Your task to perform on an android device: turn off wifi Image 0: 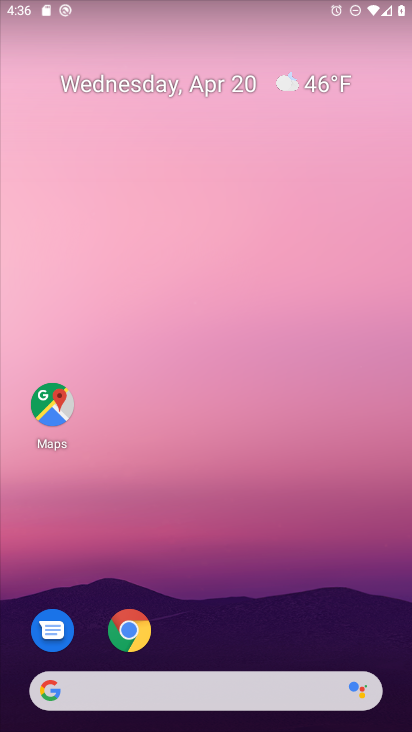
Step 0: drag from (313, 649) to (303, 91)
Your task to perform on an android device: turn off wifi Image 1: 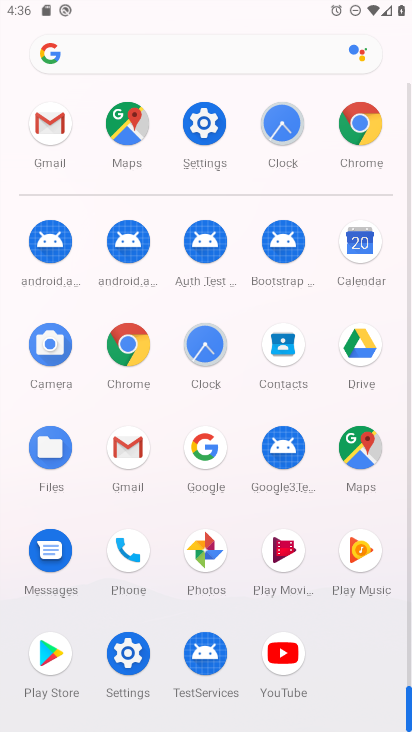
Step 1: click (133, 656)
Your task to perform on an android device: turn off wifi Image 2: 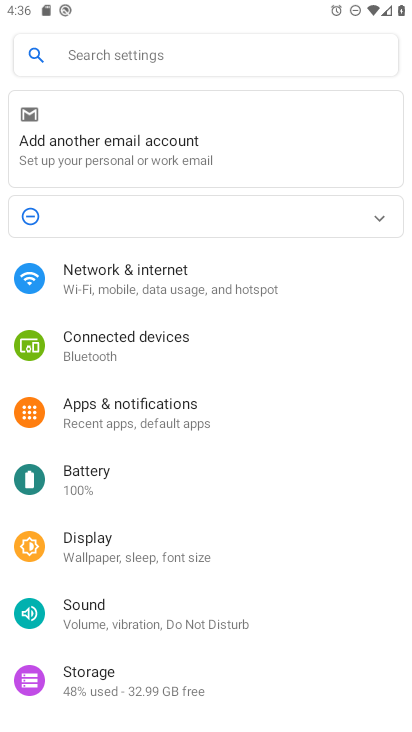
Step 2: click (177, 281)
Your task to perform on an android device: turn off wifi Image 3: 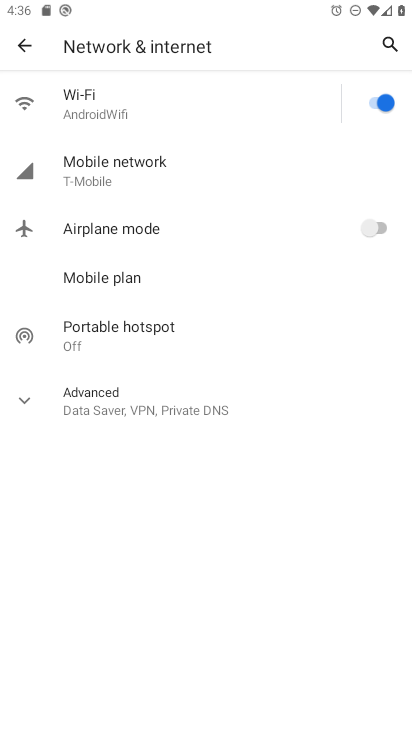
Step 3: click (372, 103)
Your task to perform on an android device: turn off wifi Image 4: 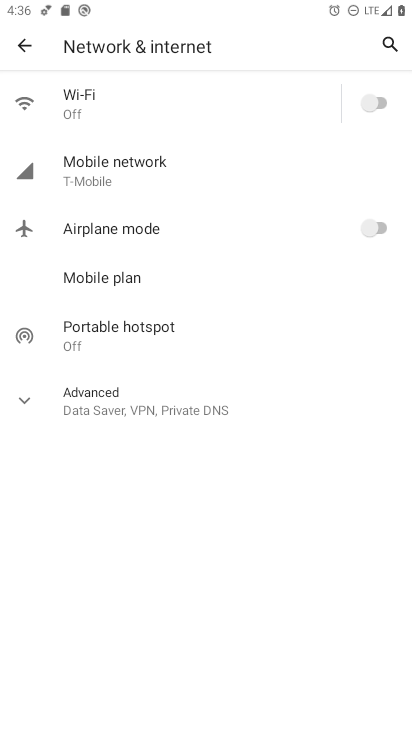
Step 4: task complete